Your task to perform on an android device: turn on data saver in the chrome app Image 0: 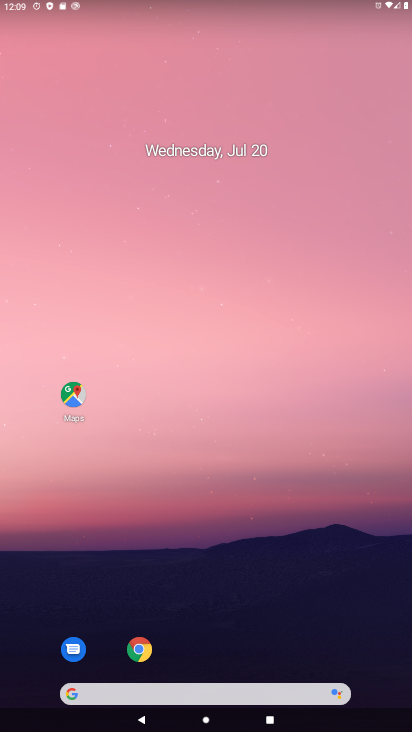
Step 0: click (139, 644)
Your task to perform on an android device: turn on data saver in the chrome app Image 1: 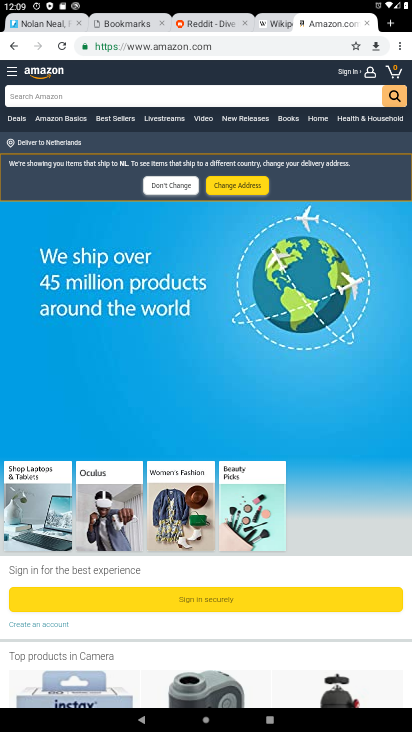
Step 1: click (398, 49)
Your task to perform on an android device: turn on data saver in the chrome app Image 2: 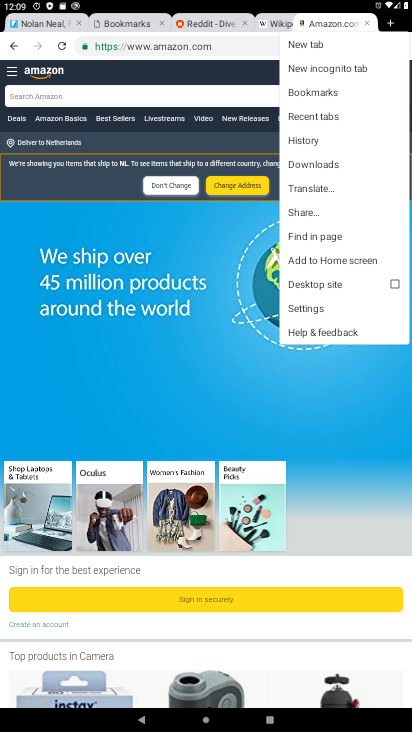
Step 2: click (311, 308)
Your task to perform on an android device: turn on data saver in the chrome app Image 3: 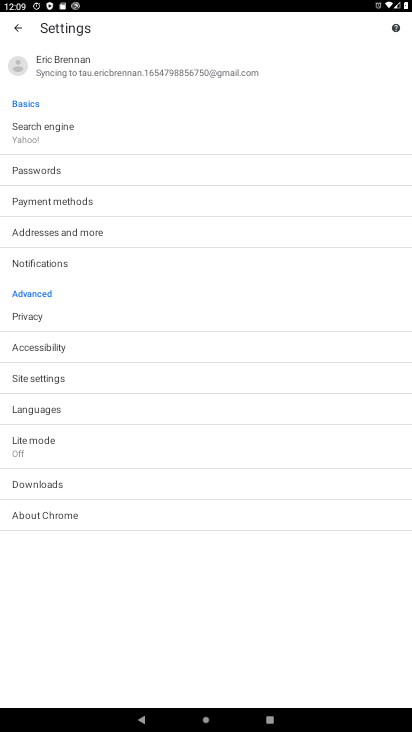
Step 3: click (34, 438)
Your task to perform on an android device: turn on data saver in the chrome app Image 4: 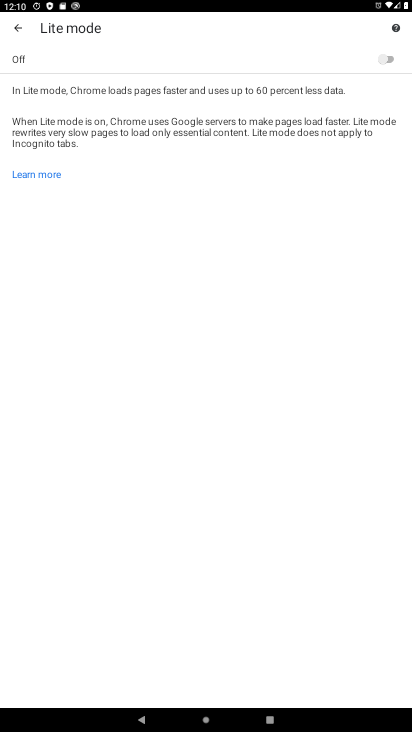
Step 4: click (390, 62)
Your task to perform on an android device: turn on data saver in the chrome app Image 5: 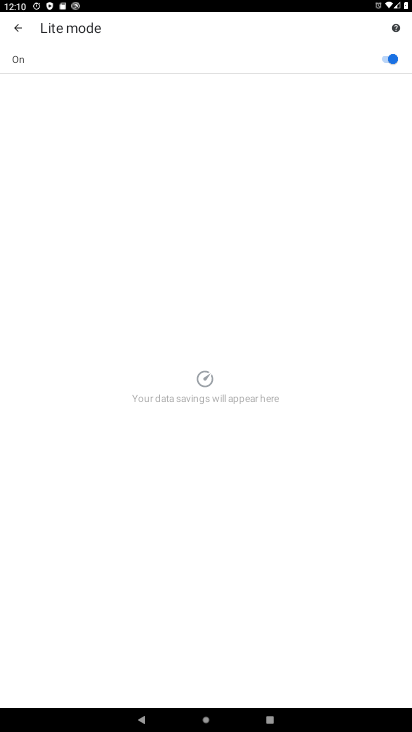
Step 5: task complete